Your task to perform on an android device: change the clock display to analog Image 0: 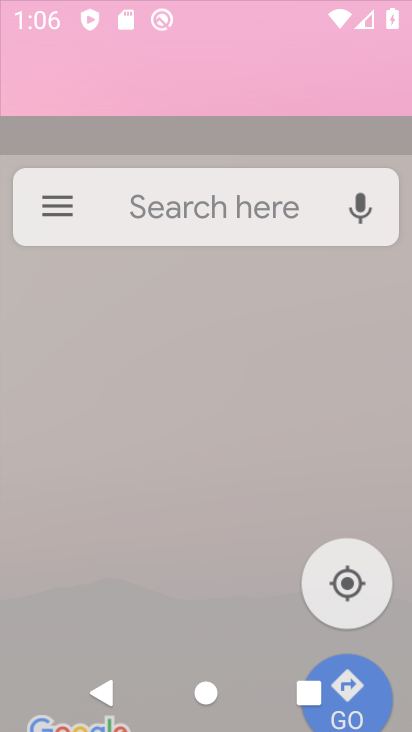
Step 0: drag from (187, 231) to (227, 205)
Your task to perform on an android device: change the clock display to analog Image 1: 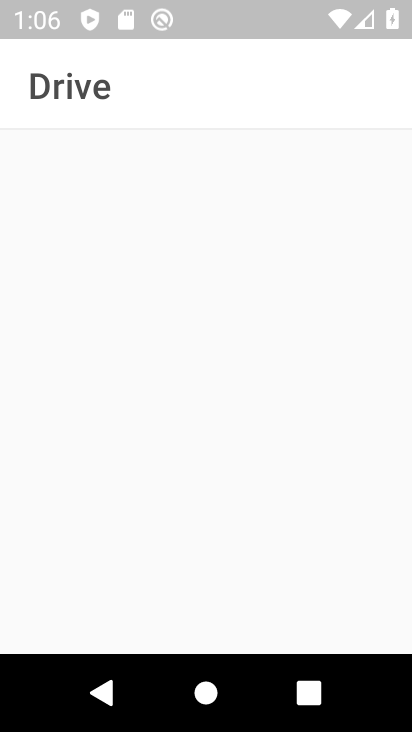
Step 1: press home button
Your task to perform on an android device: change the clock display to analog Image 2: 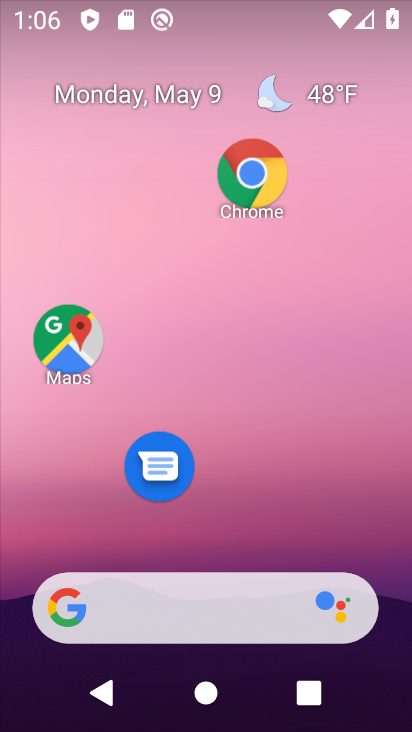
Step 2: drag from (251, 514) to (266, 134)
Your task to perform on an android device: change the clock display to analog Image 3: 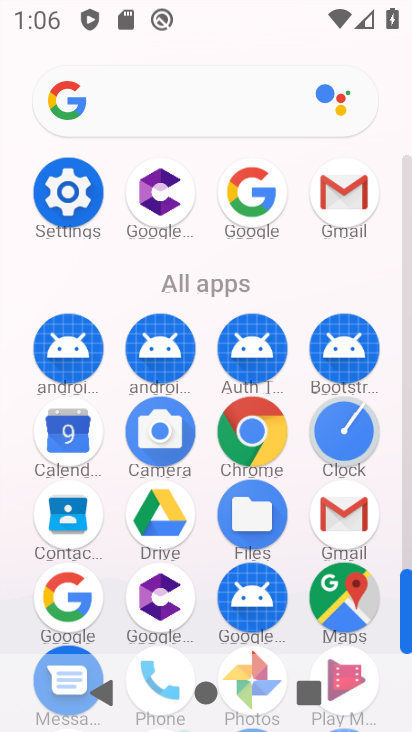
Step 3: click (335, 416)
Your task to perform on an android device: change the clock display to analog Image 4: 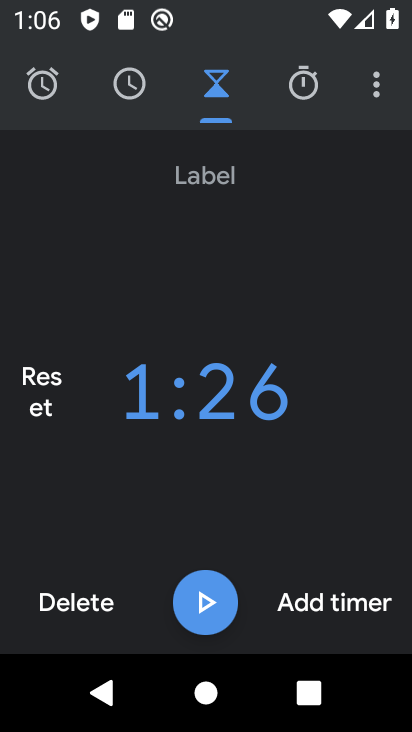
Step 4: click (362, 82)
Your task to perform on an android device: change the clock display to analog Image 5: 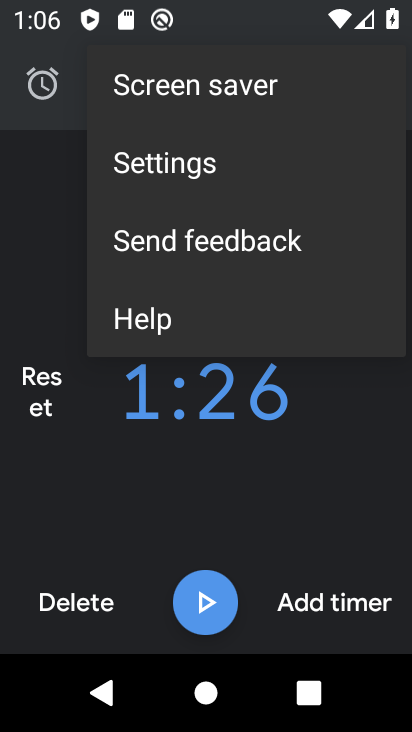
Step 5: click (246, 155)
Your task to perform on an android device: change the clock display to analog Image 6: 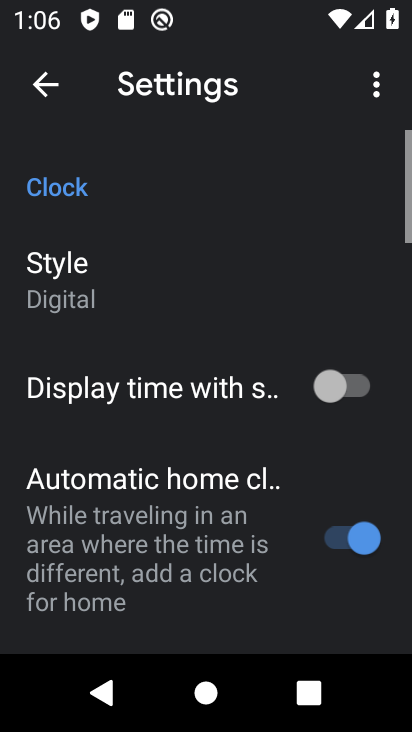
Step 6: click (165, 273)
Your task to perform on an android device: change the clock display to analog Image 7: 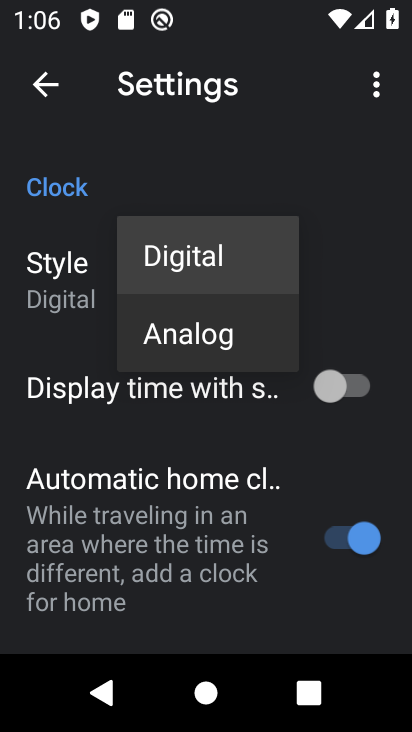
Step 7: click (199, 320)
Your task to perform on an android device: change the clock display to analog Image 8: 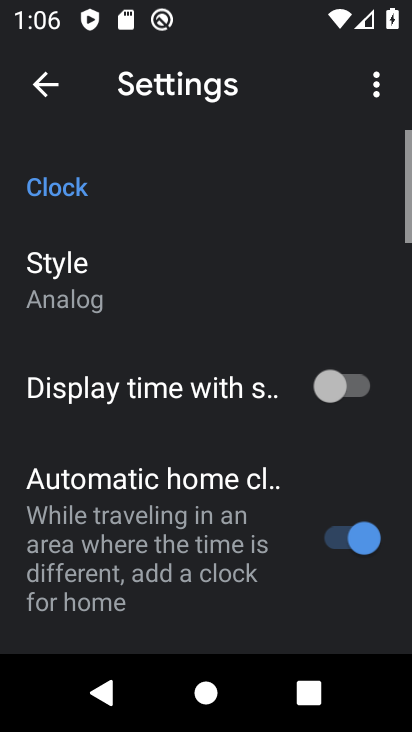
Step 8: task complete